Your task to perform on an android device: Open the phone app and click the voicemail tab. Image 0: 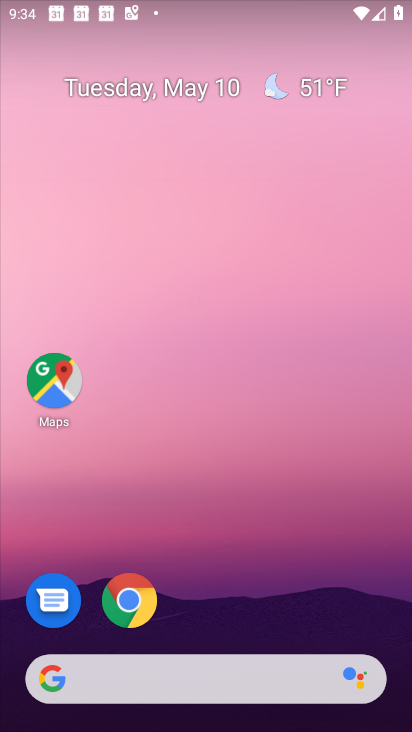
Step 0: drag from (286, 632) to (357, 9)
Your task to perform on an android device: Open the phone app and click the voicemail tab. Image 1: 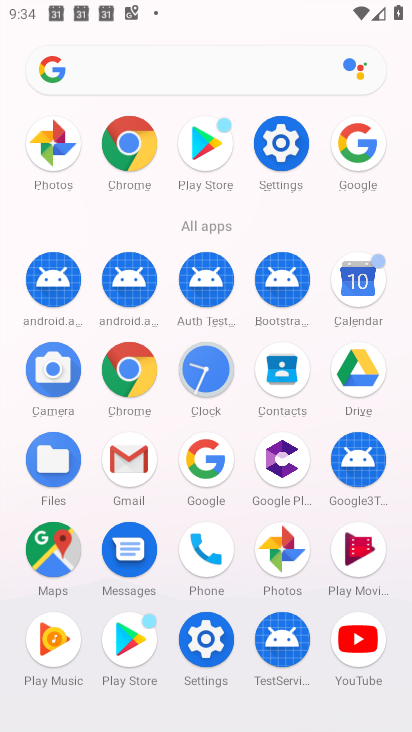
Step 1: click (192, 546)
Your task to perform on an android device: Open the phone app and click the voicemail tab. Image 2: 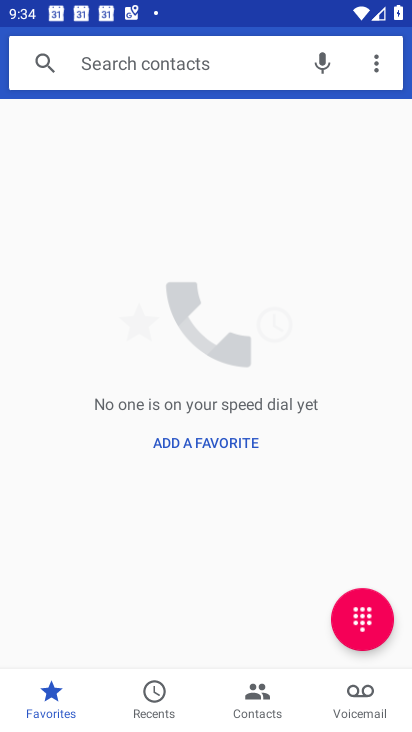
Step 2: click (359, 710)
Your task to perform on an android device: Open the phone app and click the voicemail tab. Image 3: 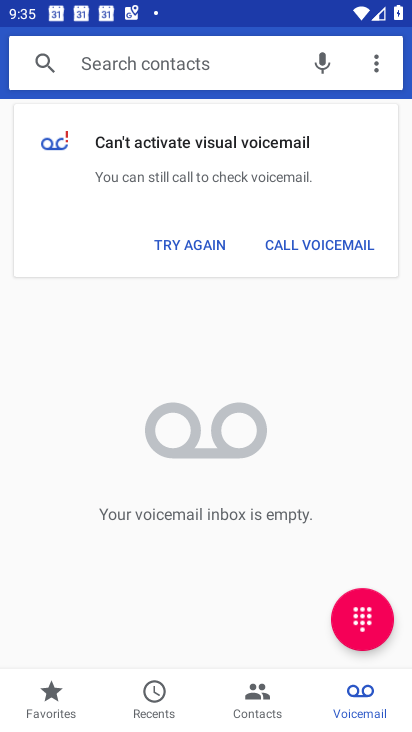
Step 3: task complete